Your task to perform on an android device: turn on airplane mode Image 0: 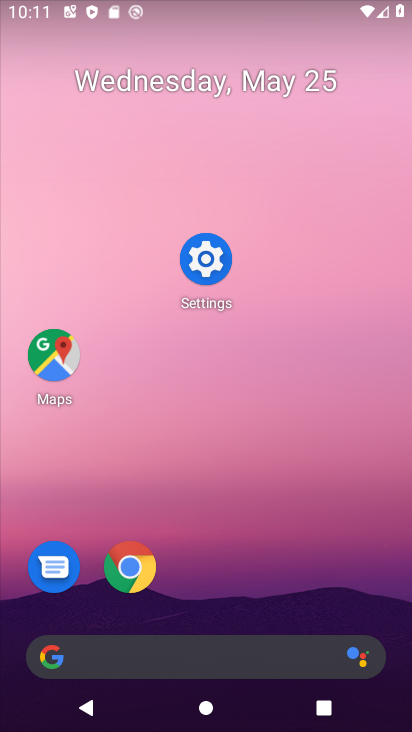
Step 0: drag from (293, 580) to (349, 77)
Your task to perform on an android device: turn on airplane mode Image 1: 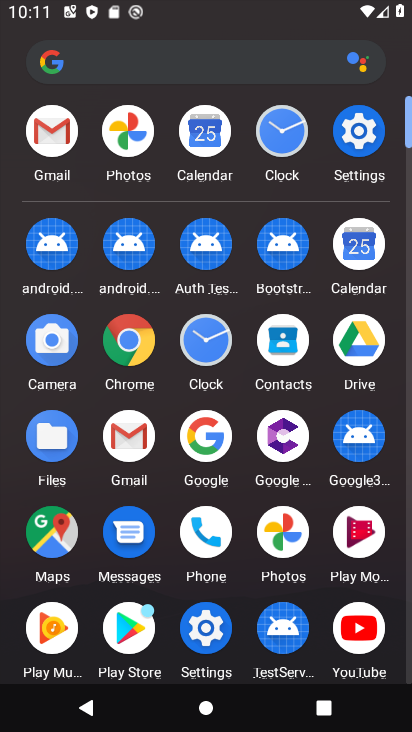
Step 1: click (359, 147)
Your task to perform on an android device: turn on airplane mode Image 2: 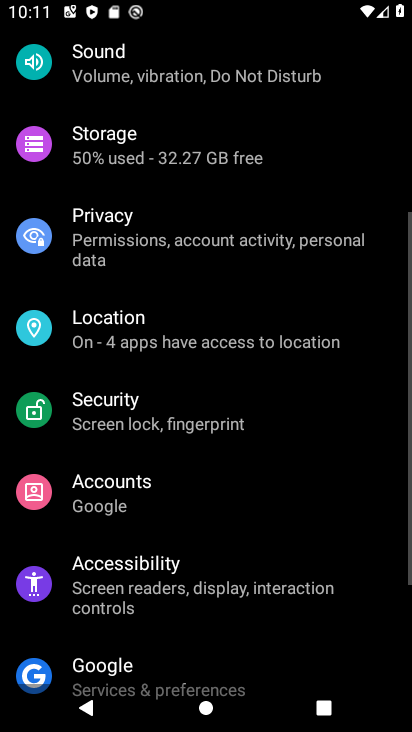
Step 2: drag from (287, 147) to (291, 617)
Your task to perform on an android device: turn on airplane mode Image 3: 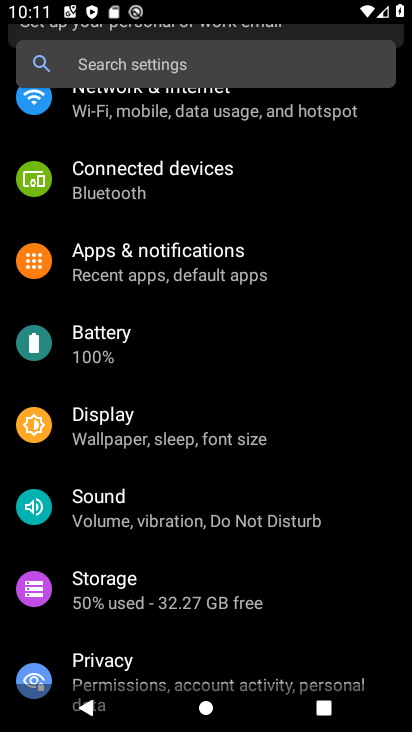
Step 3: drag from (201, 136) to (197, 425)
Your task to perform on an android device: turn on airplane mode Image 4: 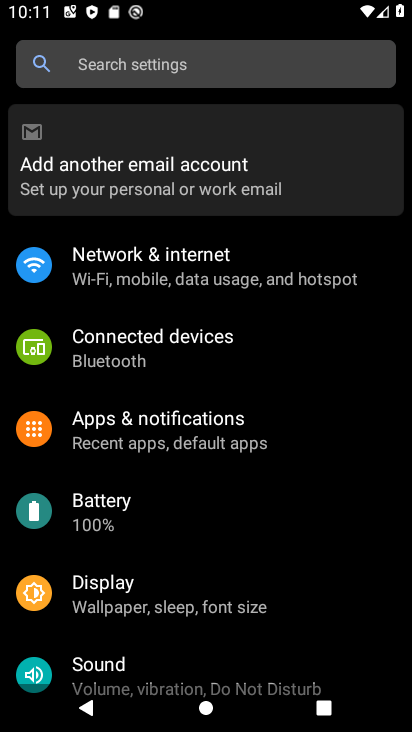
Step 4: click (233, 258)
Your task to perform on an android device: turn on airplane mode Image 5: 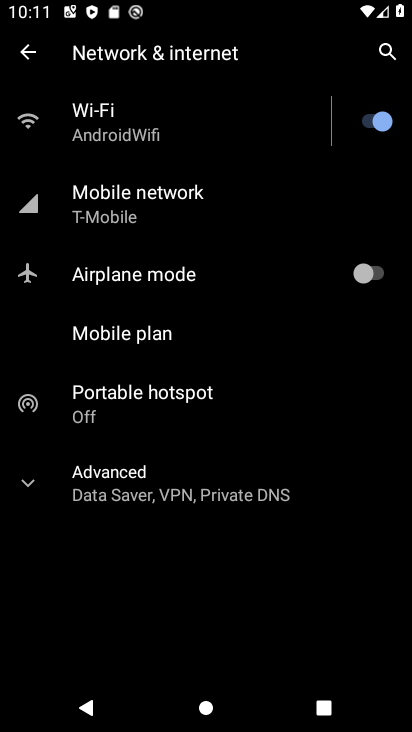
Step 5: click (367, 286)
Your task to perform on an android device: turn on airplane mode Image 6: 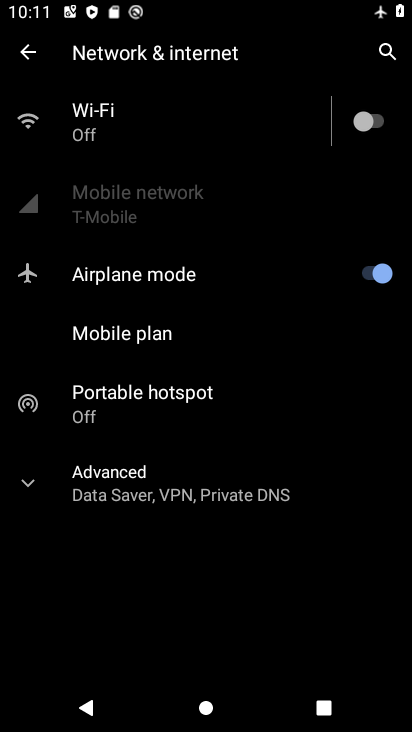
Step 6: task complete